Your task to perform on an android device: open app "Facebook Lite" (install if not already installed) and enter user name: "suppers@inbox.com" and password: "downplayed" Image 0: 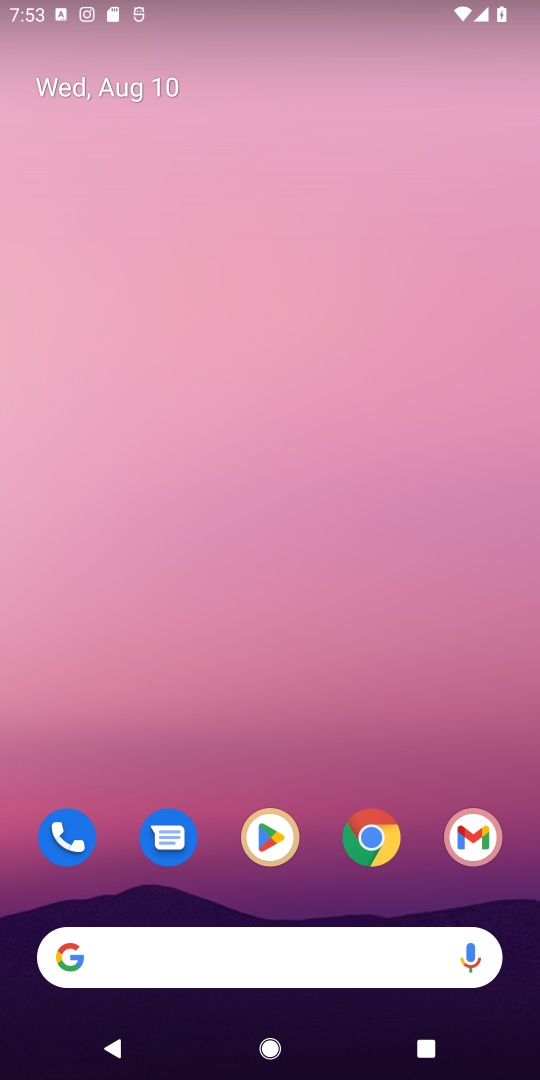
Step 0: click (262, 844)
Your task to perform on an android device: open app "Facebook Lite" (install if not already installed) and enter user name: "suppers@inbox.com" and password: "downplayed" Image 1: 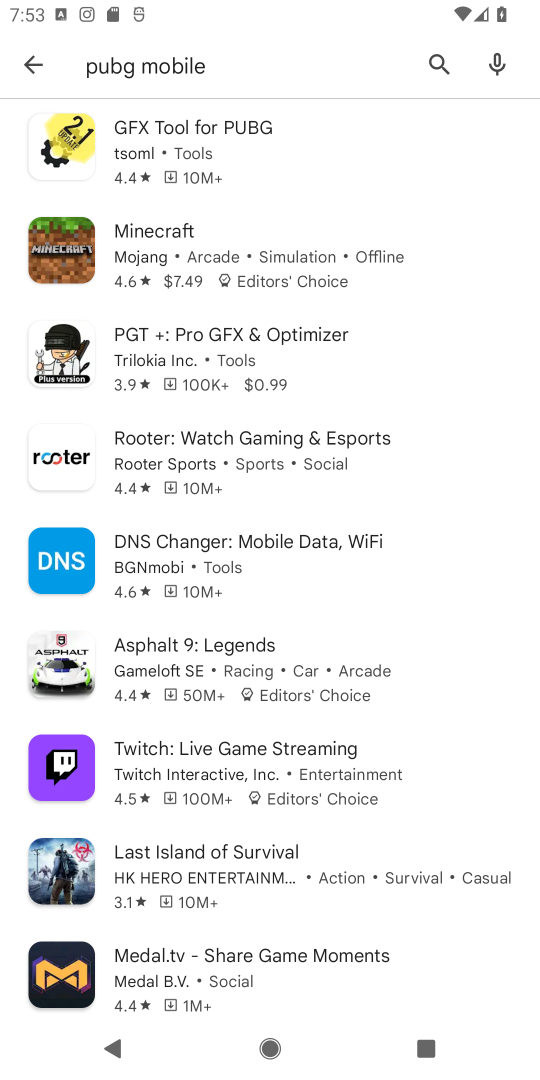
Step 1: click (434, 58)
Your task to perform on an android device: open app "Facebook Lite" (install if not already installed) and enter user name: "suppers@inbox.com" and password: "downplayed" Image 2: 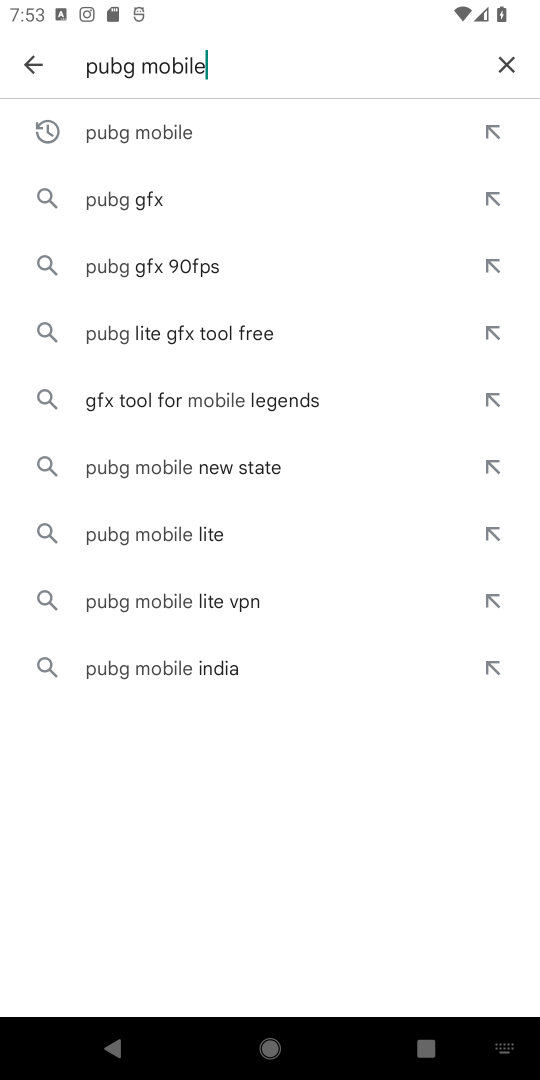
Step 2: click (496, 57)
Your task to perform on an android device: open app "Facebook Lite" (install if not already installed) and enter user name: "suppers@inbox.com" and password: "downplayed" Image 3: 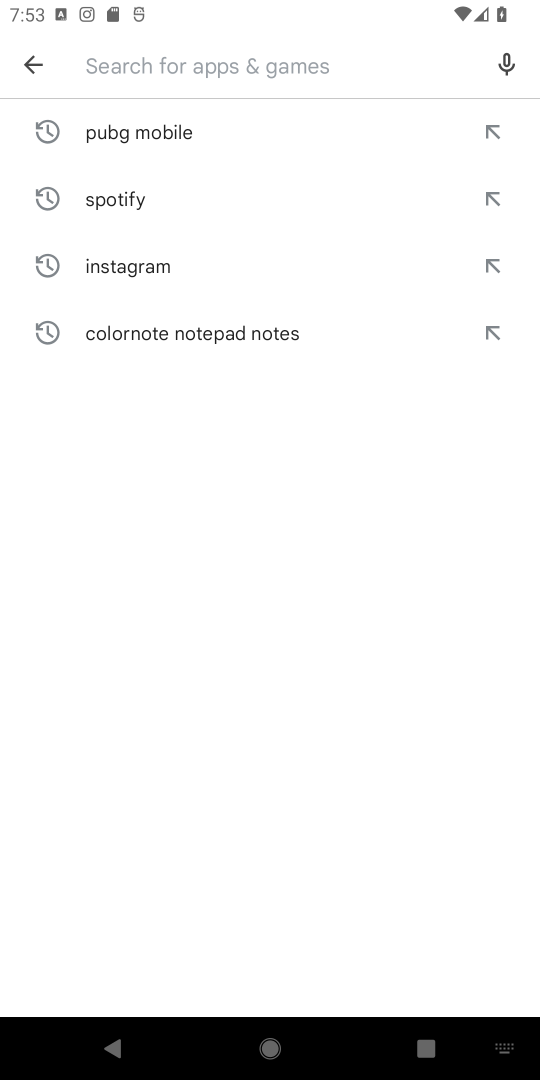
Step 3: type "Facebook Lite"
Your task to perform on an android device: open app "Facebook Lite" (install if not already installed) and enter user name: "suppers@inbox.com" and password: "downplayed" Image 4: 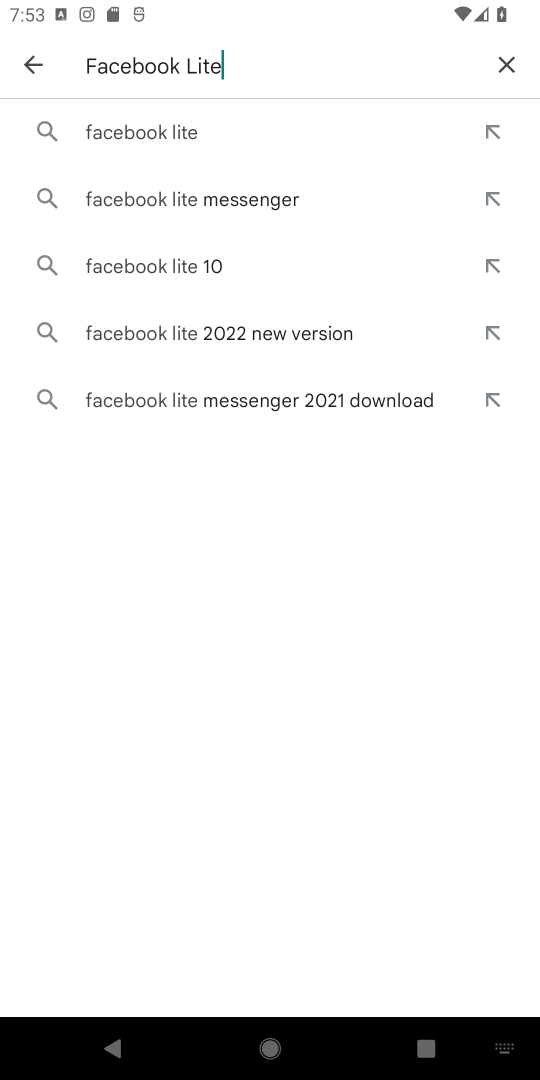
Step 4: click (184, 124)
Your task to perform on an android device: open app "Facebook Lite" (install if not already installed) and enter user name: "suppers@inbox.com" and password: "downplayed" Image 5: 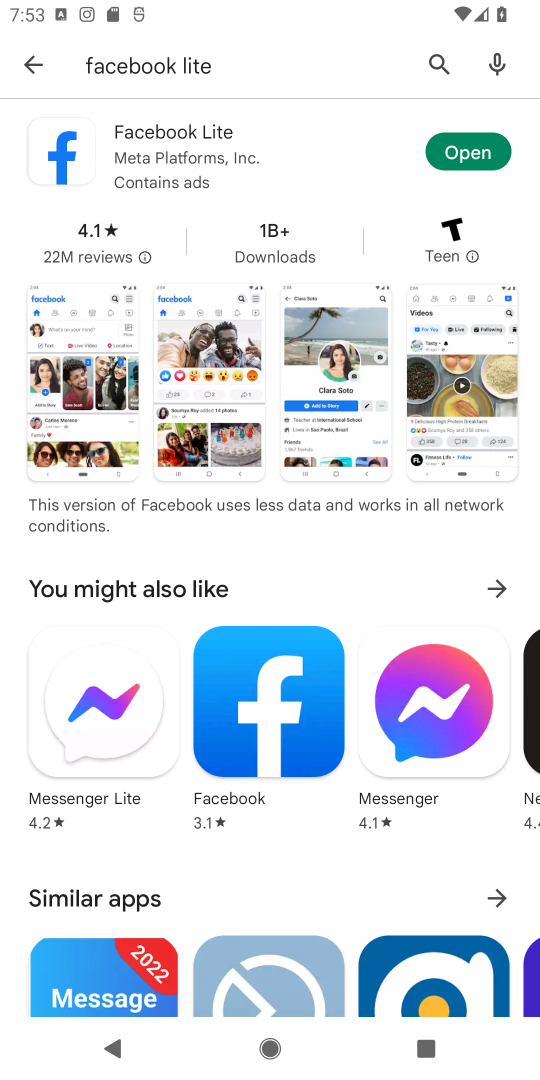
Step 5: click (462, 136)
Your task to perform on an android device: open app "Facebook Lite" (install if not already installed) and enter user name: "suppers@inbox.com" and password: "downplayed" Image 6: 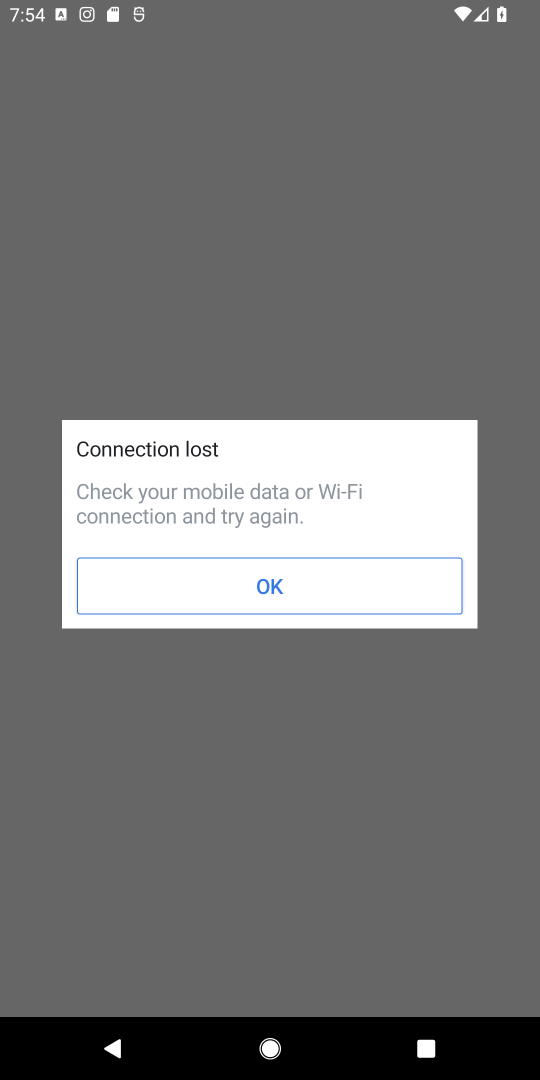
Step 6: task complete